Your task to perform on an android device: turn off translation in the chrome app Image 0: 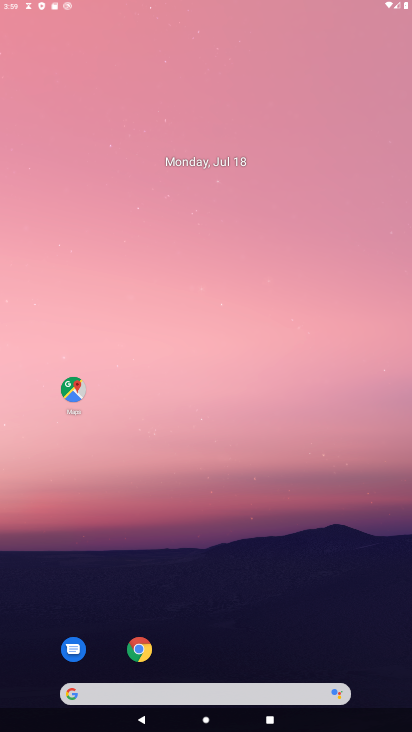
Step 0: press home button
Your task to perform on an android device: turn off translation in the chrome app Image 1: 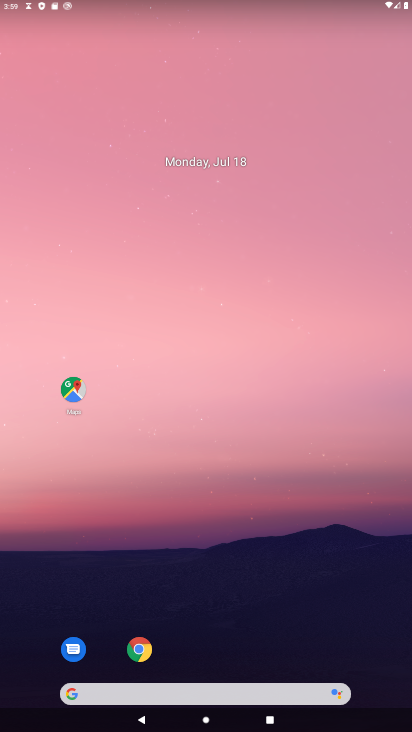
Step 1: click (143, 649)
Your task to perform on an android device: turn off translation in the chrome app Image 2: 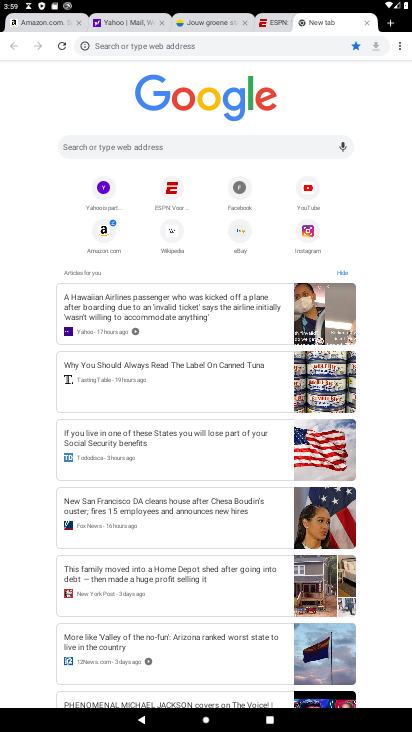
Step 2: drag from (397, 43) to (324, 237)
Your task to perform on an android device: turn off translation in the chrome app Image 3: 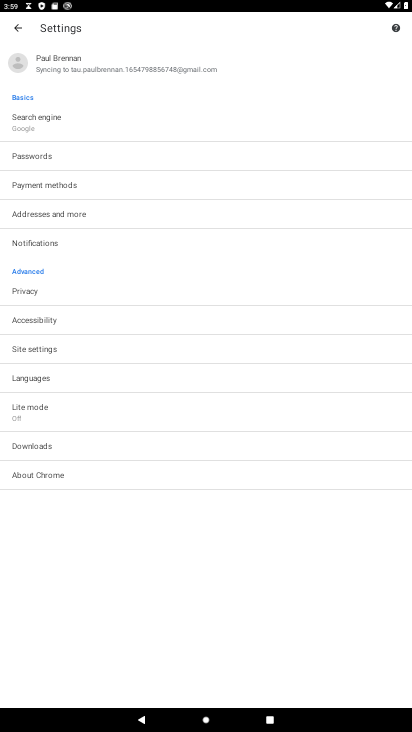
Step 3: click (27, 375)
Your task to perform on an android device: turn off translation in the chrome app Image 4: 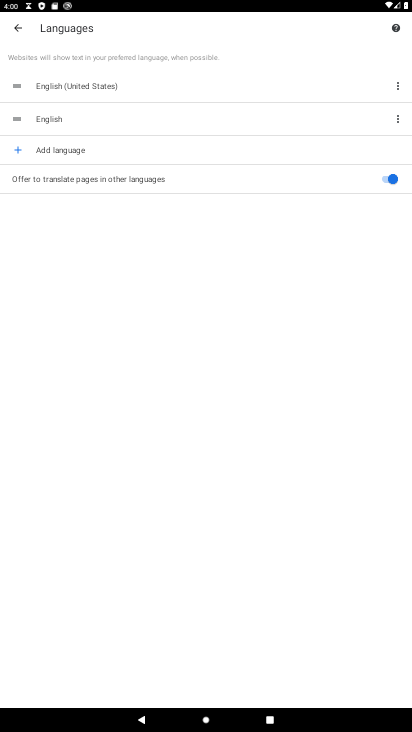
Step 4: click (391, 176)
Your task to perform on an android device: turn off translation in the chrome app Image 5: 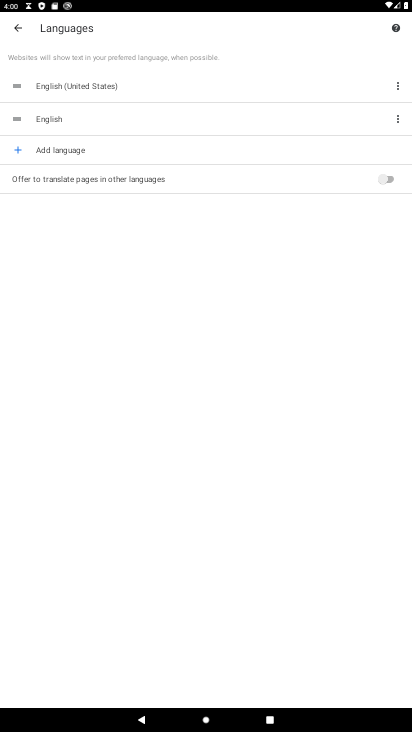
Step 5: task complete